Your task to perform on an android device: Show the shopping cart on target.com. Add usb-c to usb-b to the cart on target.com, then select checkout. Image 0: 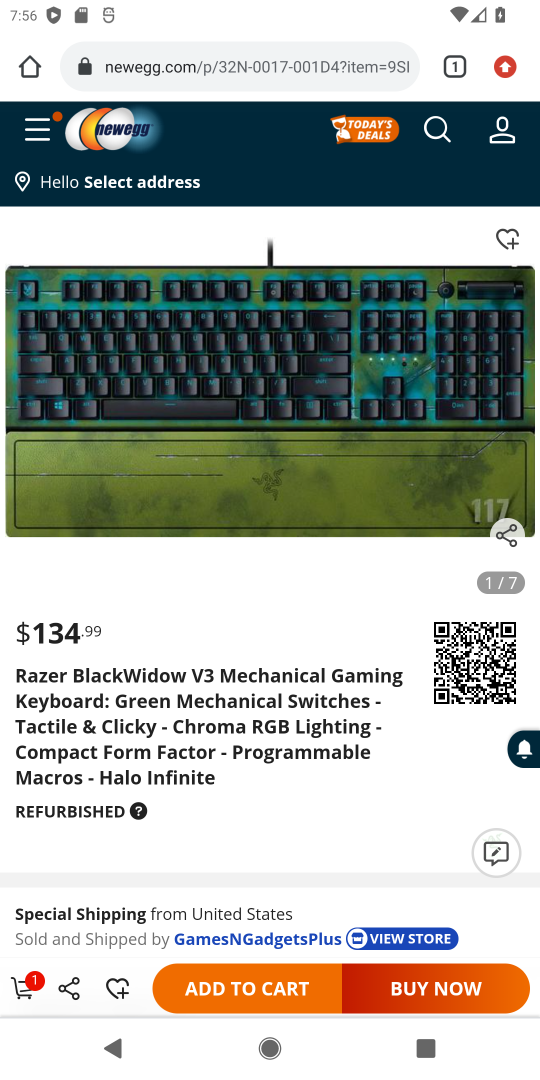
Step 0: click (279, 53)
Your task to perform on an android device: Show the shopping cart on target.com. Add usb-c to usb-b to the cart on target.com, then select checkout. Image 1: 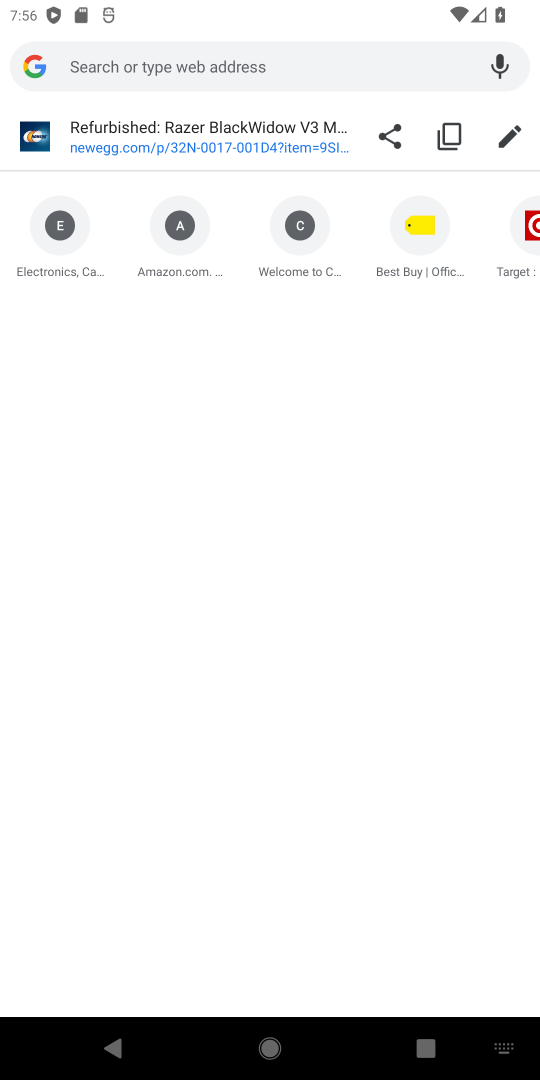
Step 1: type "target.com"
Your task to perform on an android device: Show the shopping cart on target.com. Add usb-c to usb-b to the cart on target.com, then select checkout. Image 2: 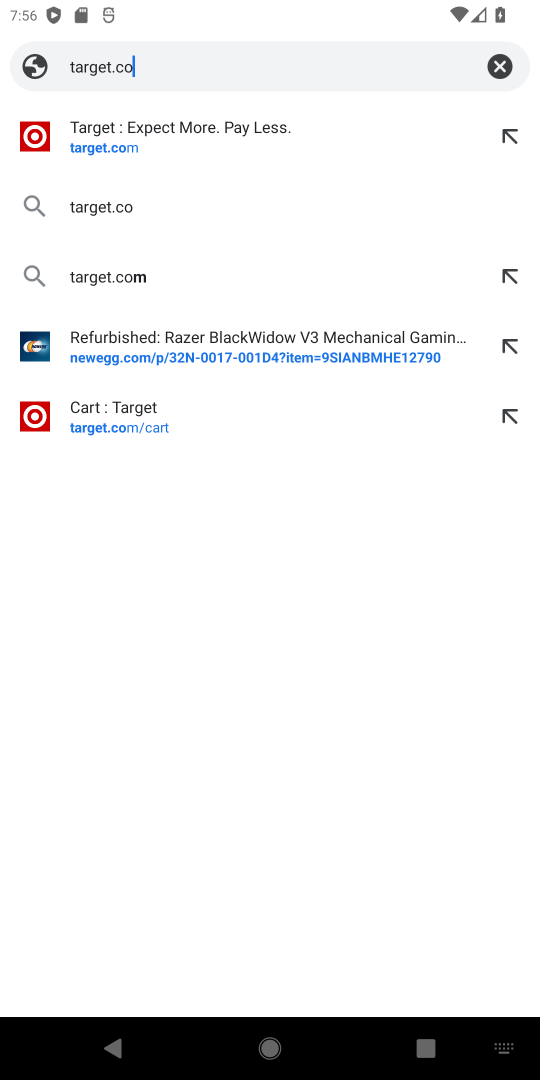
Step 2: type ""
Your task to perform on an android device: Show the shopping cart on target.com. Add usb-c to usb-b to the cart on target.com, then select checkout. Image 3: 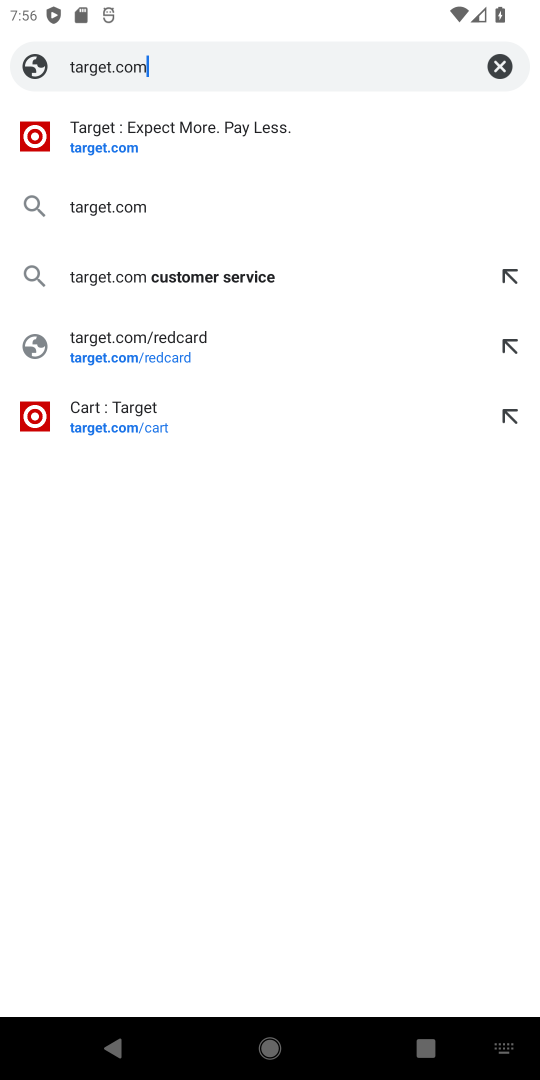
Step 3: press enter
Your task to perform on an android device: Show the shopping cart on target.com. Add usb-c to usb-b to the cart on target.com, then select checkout. Image 4: 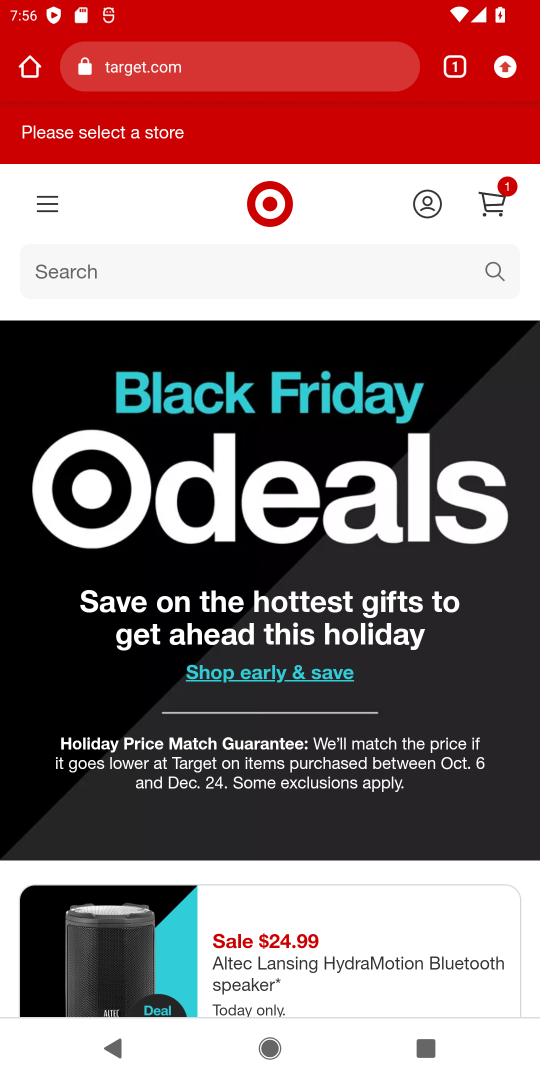
Step 4: click (503, 202)
Your task to perform on an android device: Show the shopping cart on target.com. Add usb-c to usb-b to the cart on target.com, then select checkout. Image 5: 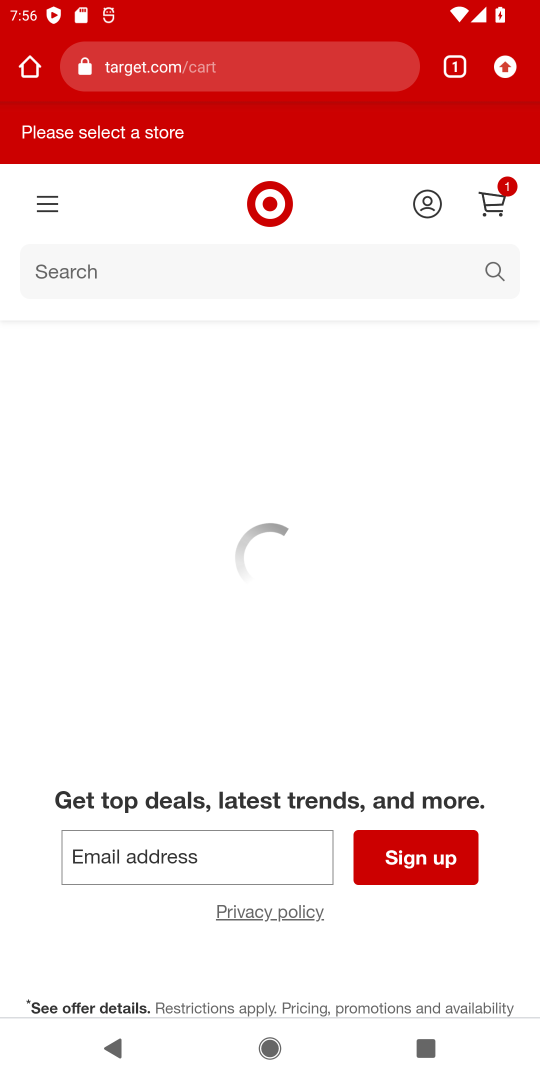
Step 5: click (233, 280)
Your task to perform on an android device: Show the shopping cart on target.com. Add usb-c to usb-b to the cart on target.com, then select checkout. Image 6: 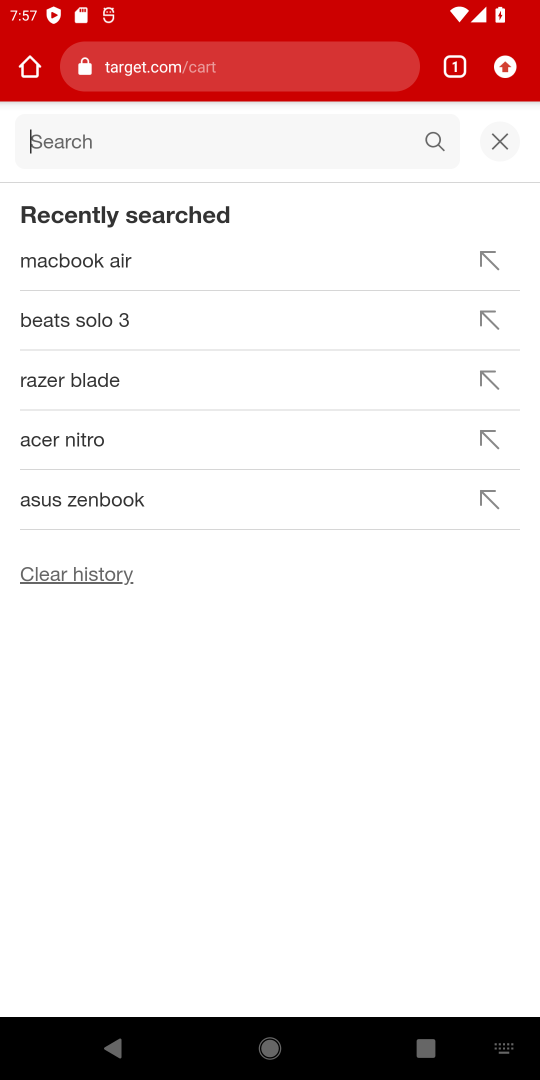
Step 6: type "usb-c to usb-b"
Your task to perform on an android device: Show the shopping cart on target.com. Add usb-c to usb-b to the cart on target.com, then select checkout. Image 7: 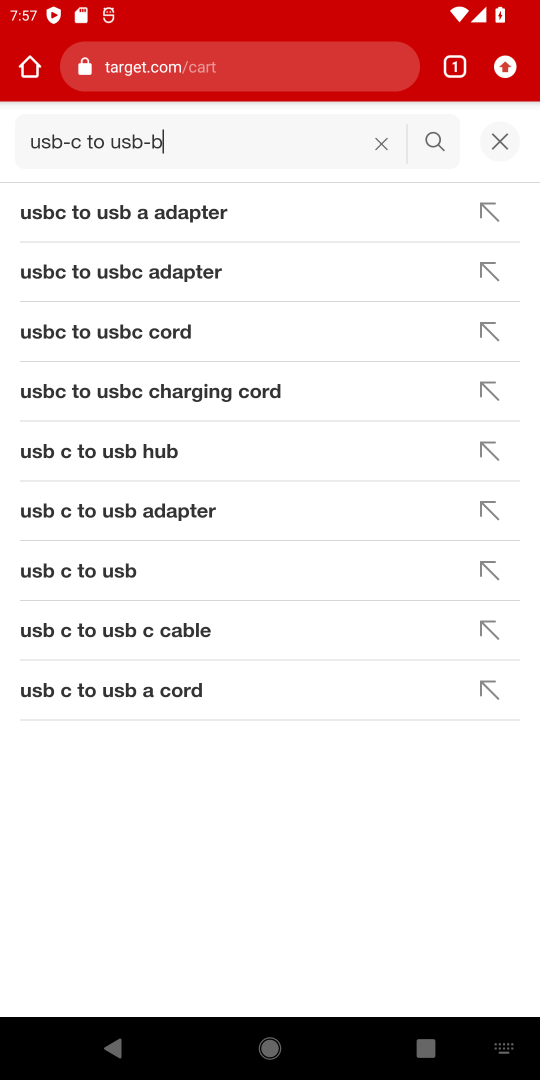
Step 7: press enter
Your task to perform on an android device: Show the shopping cart on target.com. Add usb-c to usb-b to the cart on target.com, then select checkout. Image 8: 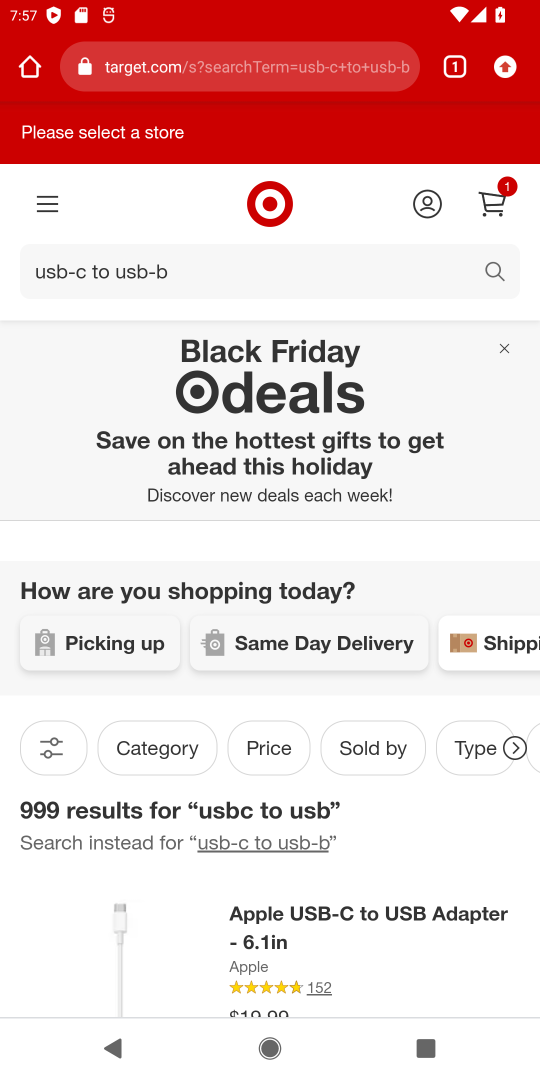
Step 8: drag from (363, 856) to (347, 567)
Your task to perform on an android device: Show the shopping cart on target.com. Add usb-c to usb-b to the cart on target.com, then select checkout. Image 9: 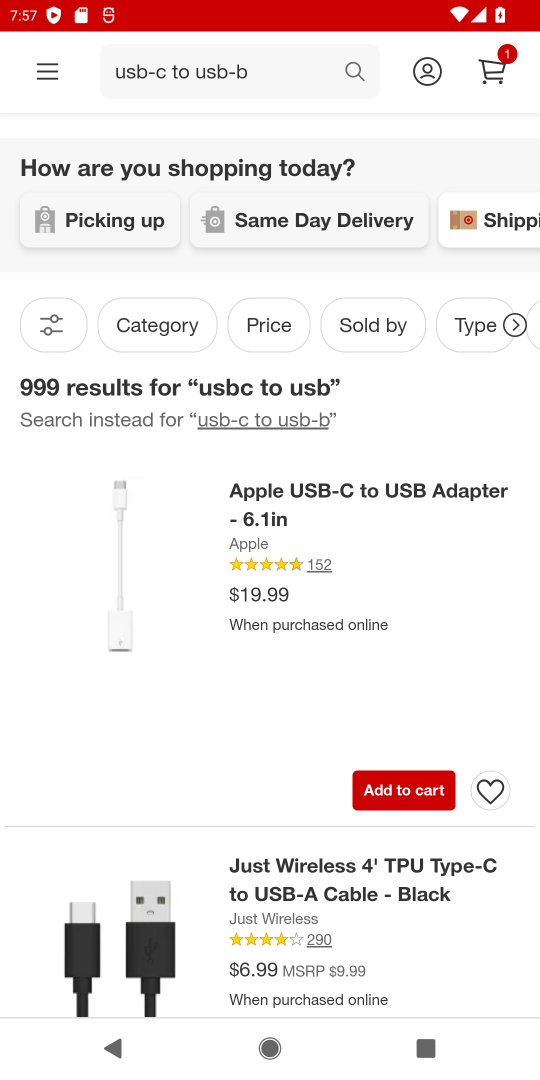
Step 9: click (323, 489)
Your task to perform on an android device: Show the shopping cart on target.com. Add usb-c to usb-b to the cart on target.com, then select checkout. Image 10: 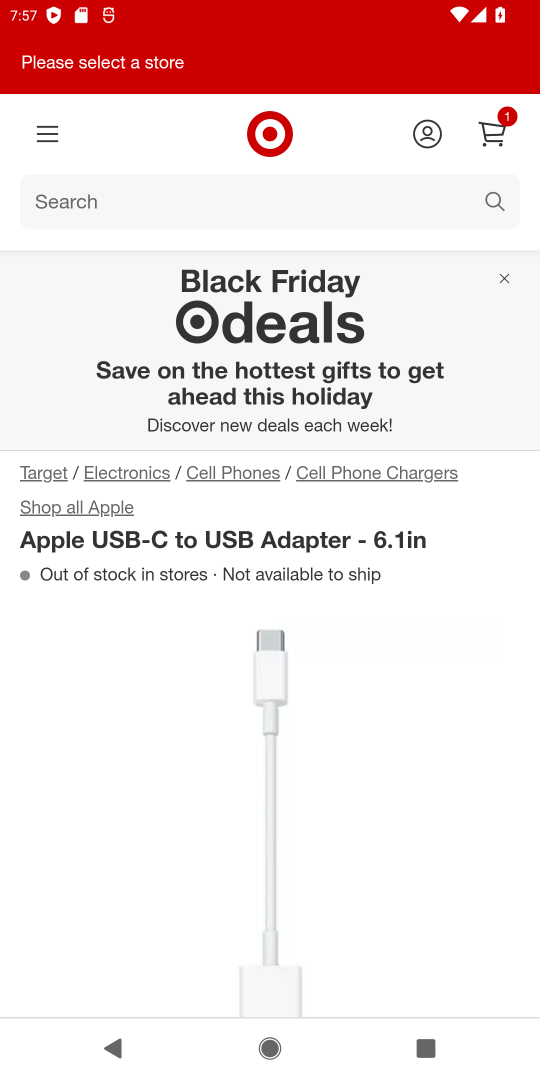
Step 10: drag from (385, 868) to (363, 316)
Your task to perform on an android device: Show the shopping cart on target.com. Add usb-c to usb-b to the cart on target.com, then select checkout. Image 11: 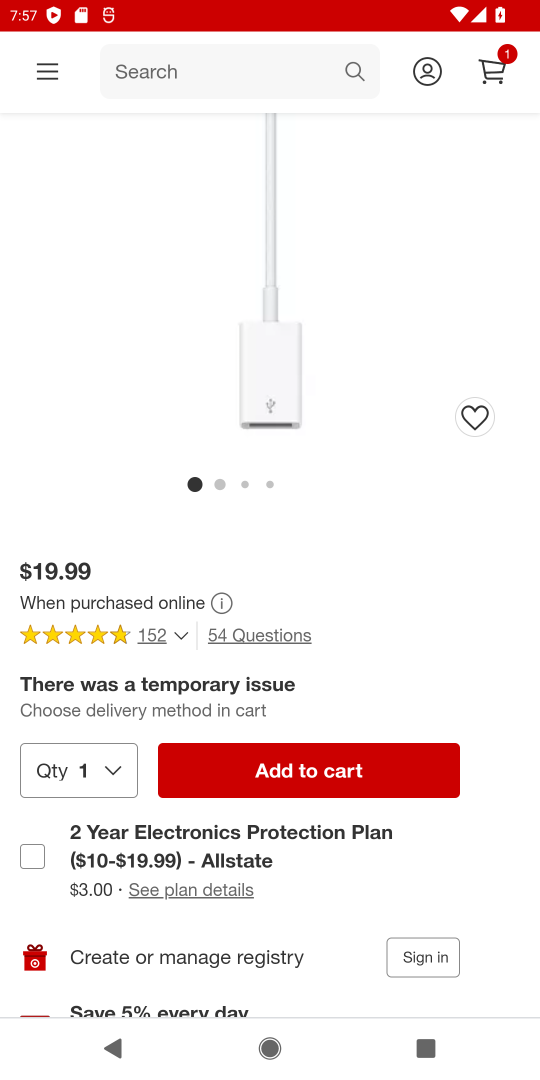
Step 11: click (326, 775)
Your task to perform on an android device: Show the shopping cart on target.com. Add usb-c to usb-b to the cart on target.com, then select checkout. Image 12: 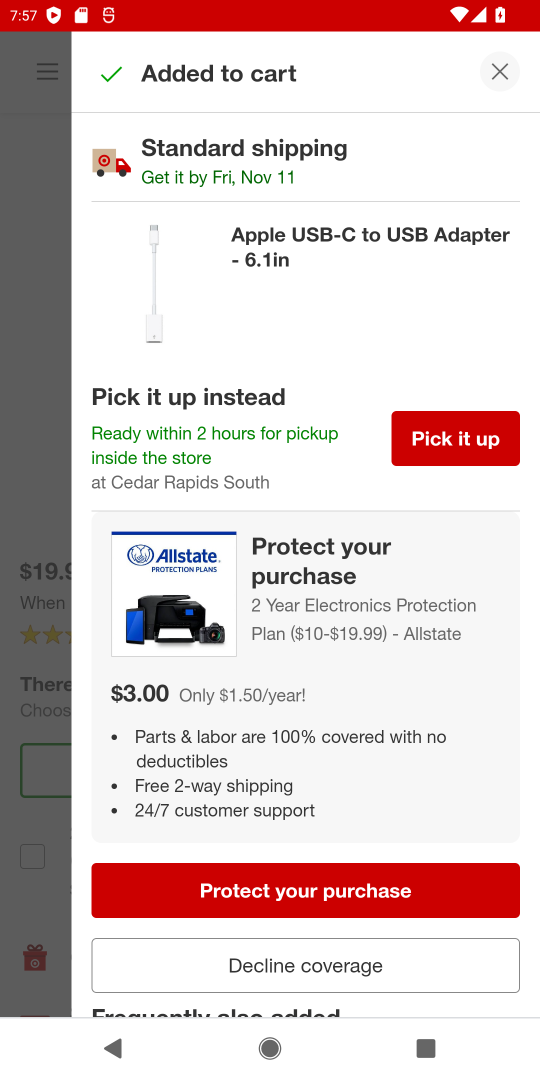
Step 12: click (377, 975)
Your task to perform on an android device: Show the shopping cart on target.com. Add usb-c to usb-b to the cart on target.com, then select checkout. Image 13: 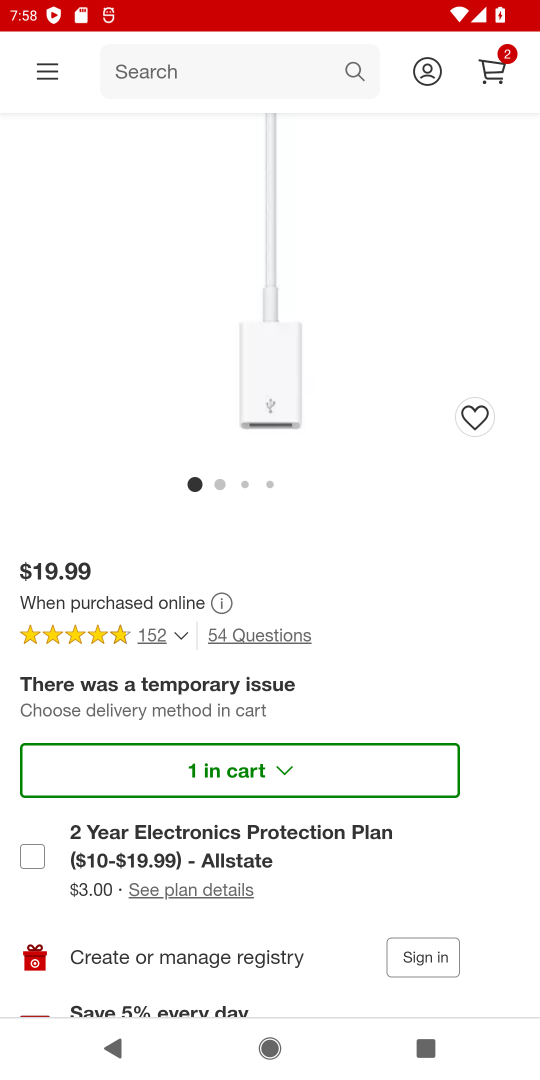
Step 13: click (501, 67)
Your task to perform on an android device: Show the shopping cart on target.com. Add usb-c to usb-b to the cart on target.com, then select checkout. Image 14: 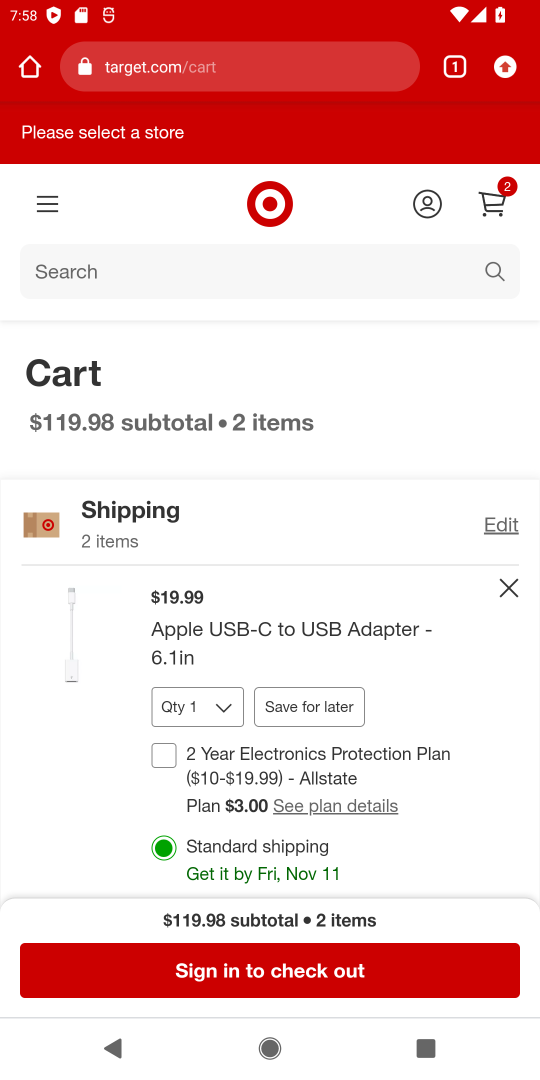
Step 14: click (227, 991)
Your task to perform on an android device: Show the shopping cart on target.com. Add usb-c to usb-b to the cart on target.com, then select checkout. Image 15: 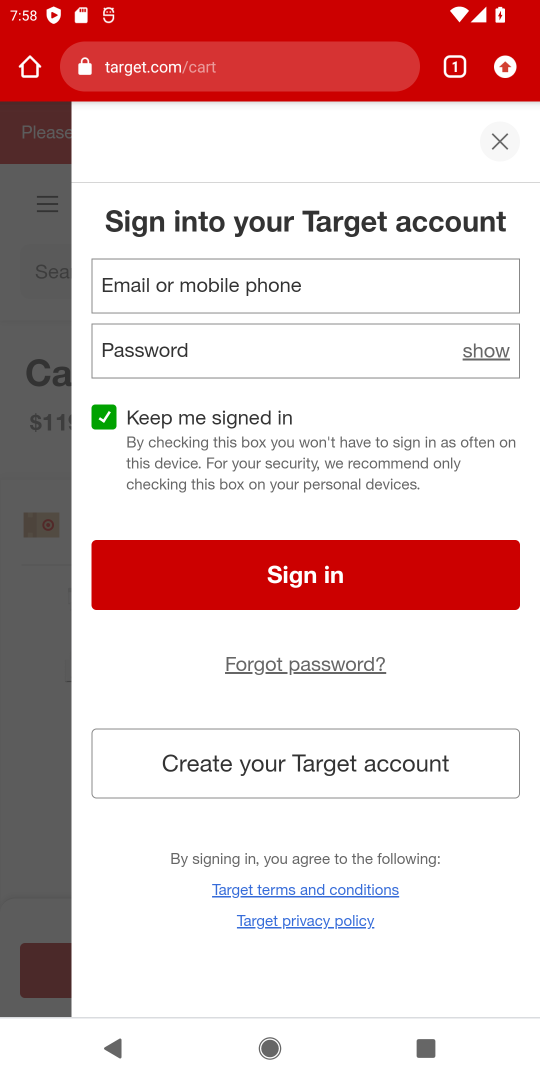
Step 15: task complete